Your task to perform on an android device: What's the news in South Korea? Image 0: 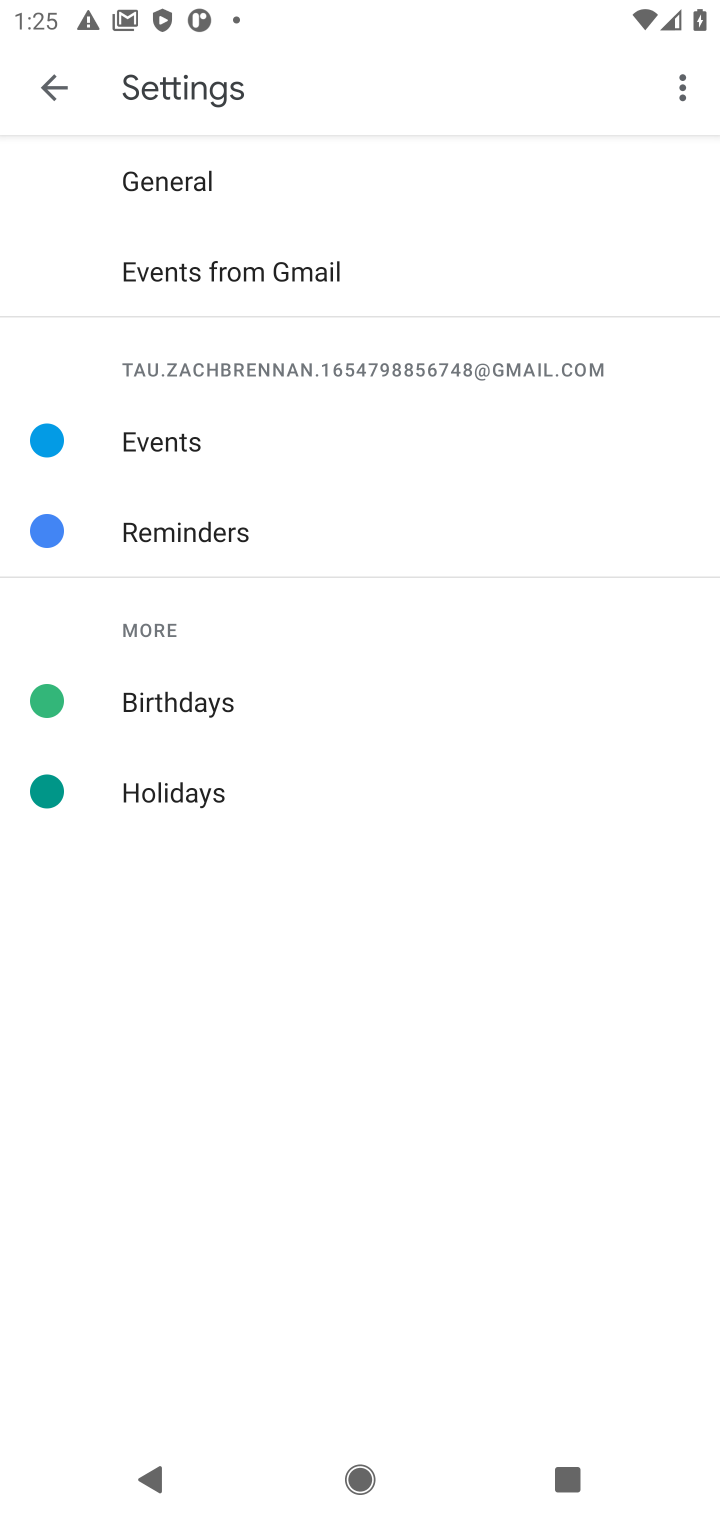
Step 0: press home button
Your task to perform on an android device: What's the news in South Korea? Image 1: 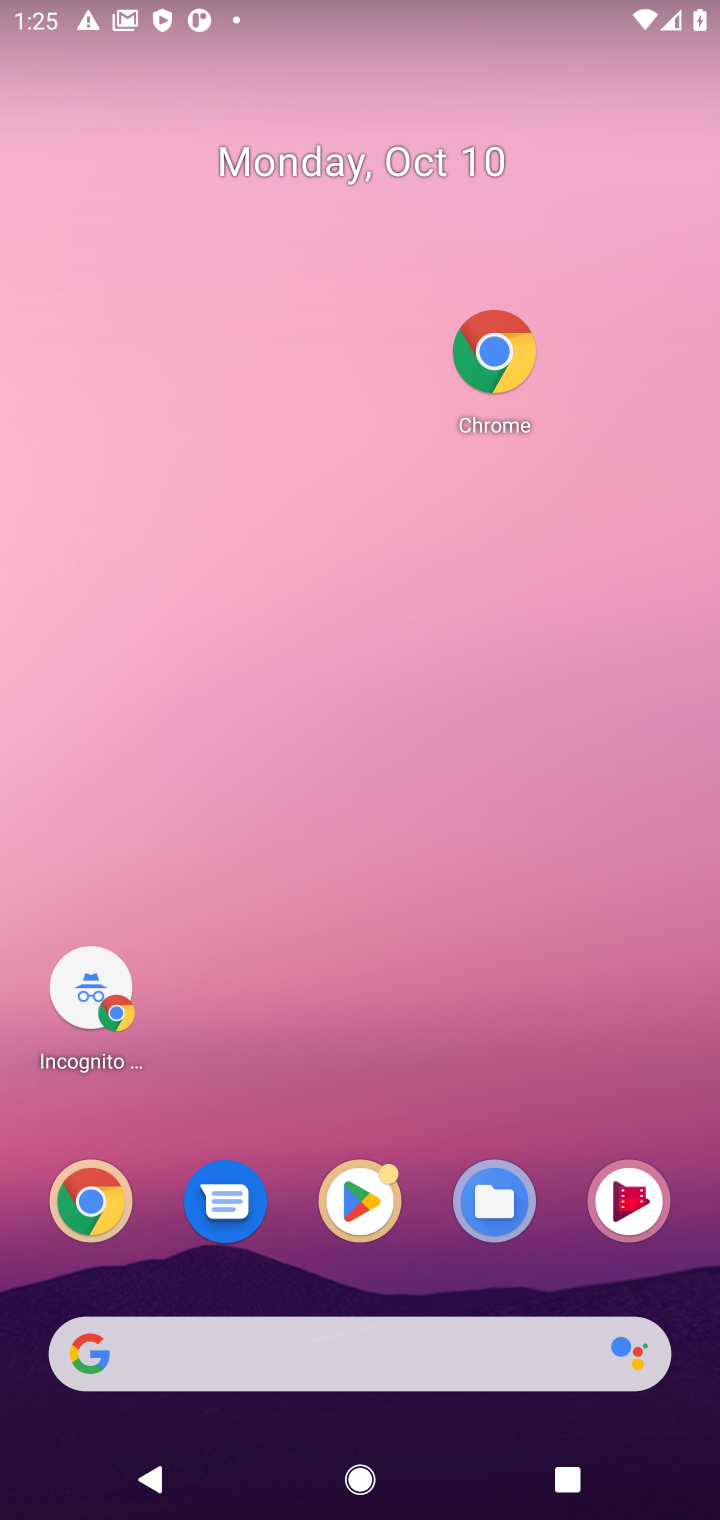
Step 1: click (152, 1351)
Your task to perform on an android device: What's the news in South Korea? Image 2: 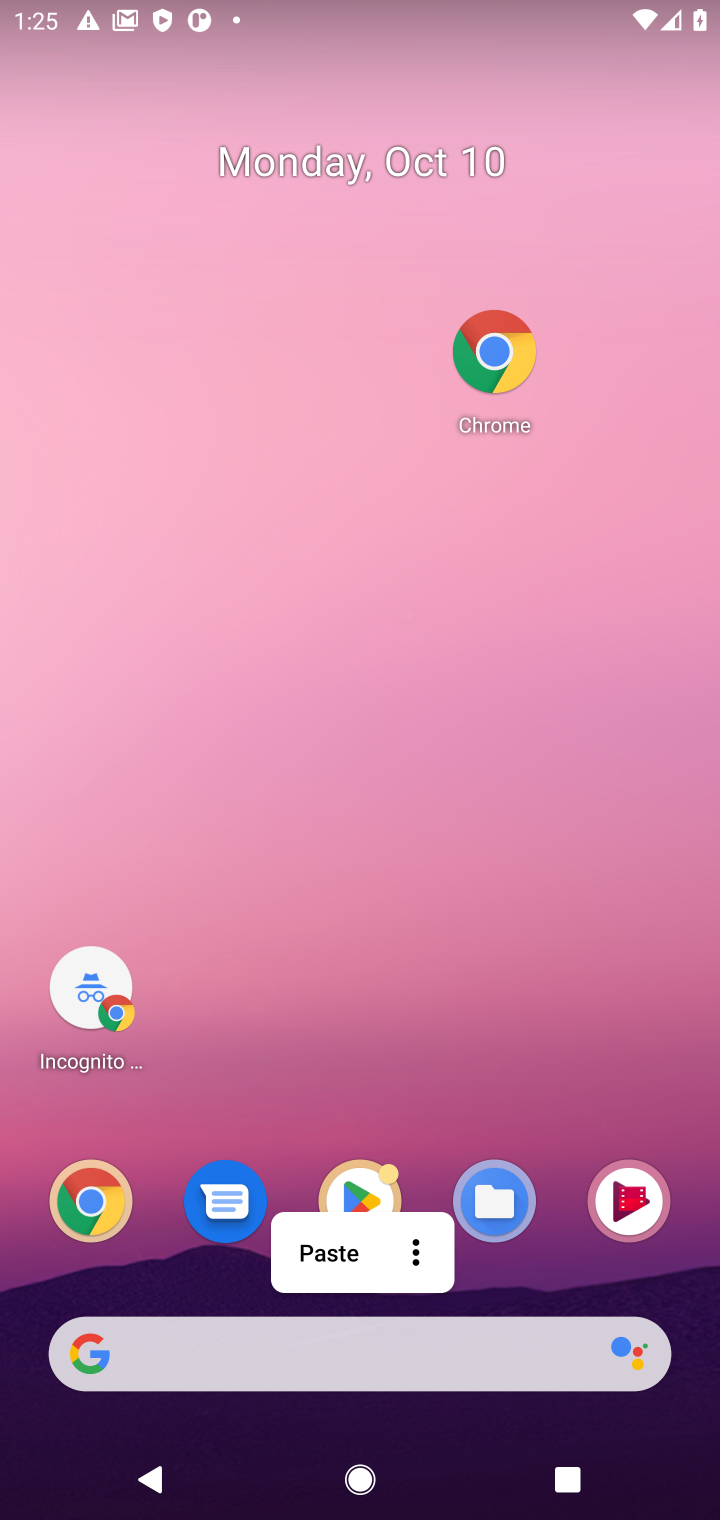
Step 2: click (190, 1357)
Your task to perform on an android device: What's the news in South Korea? Image 3: 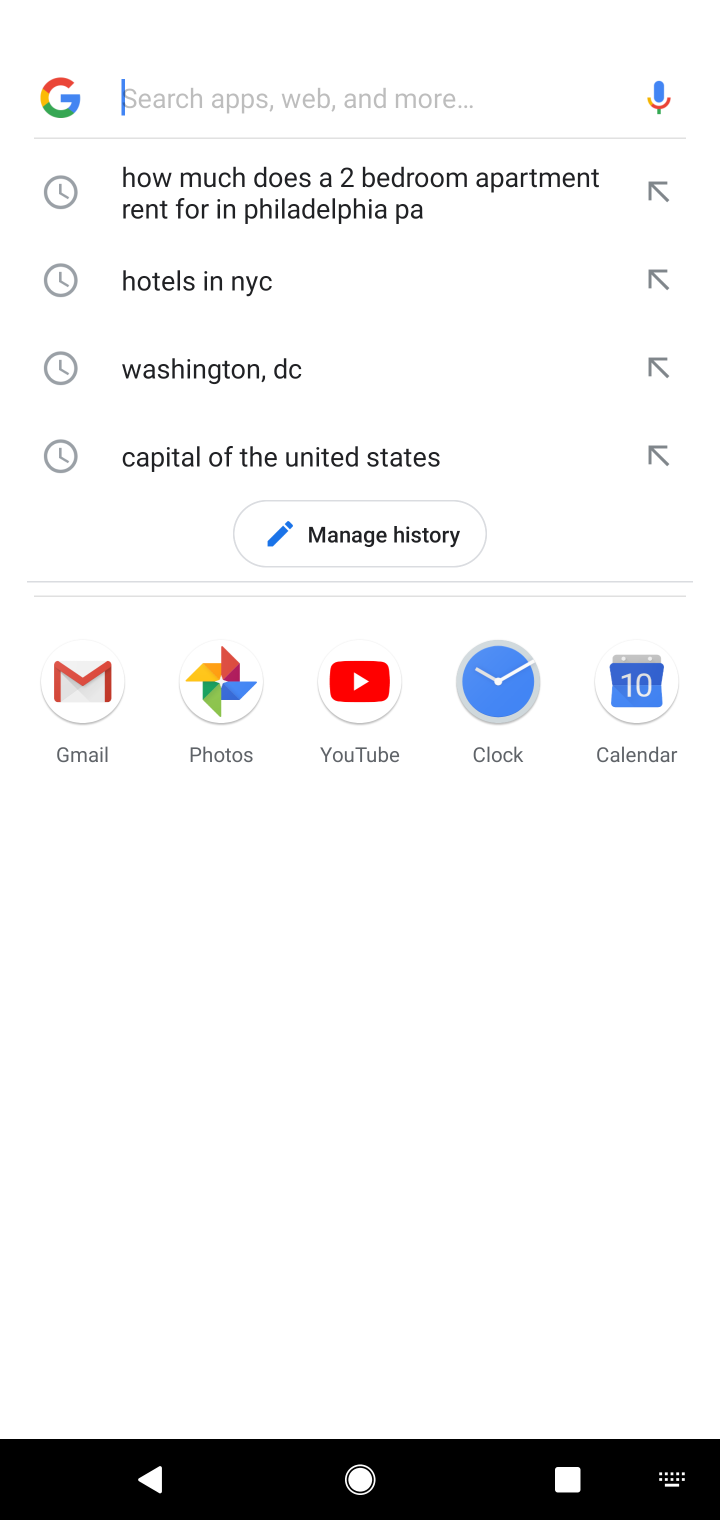
Step 3: click (148, 84)
Your task to perform on an android device: What's the news in South Korea? Image 4: 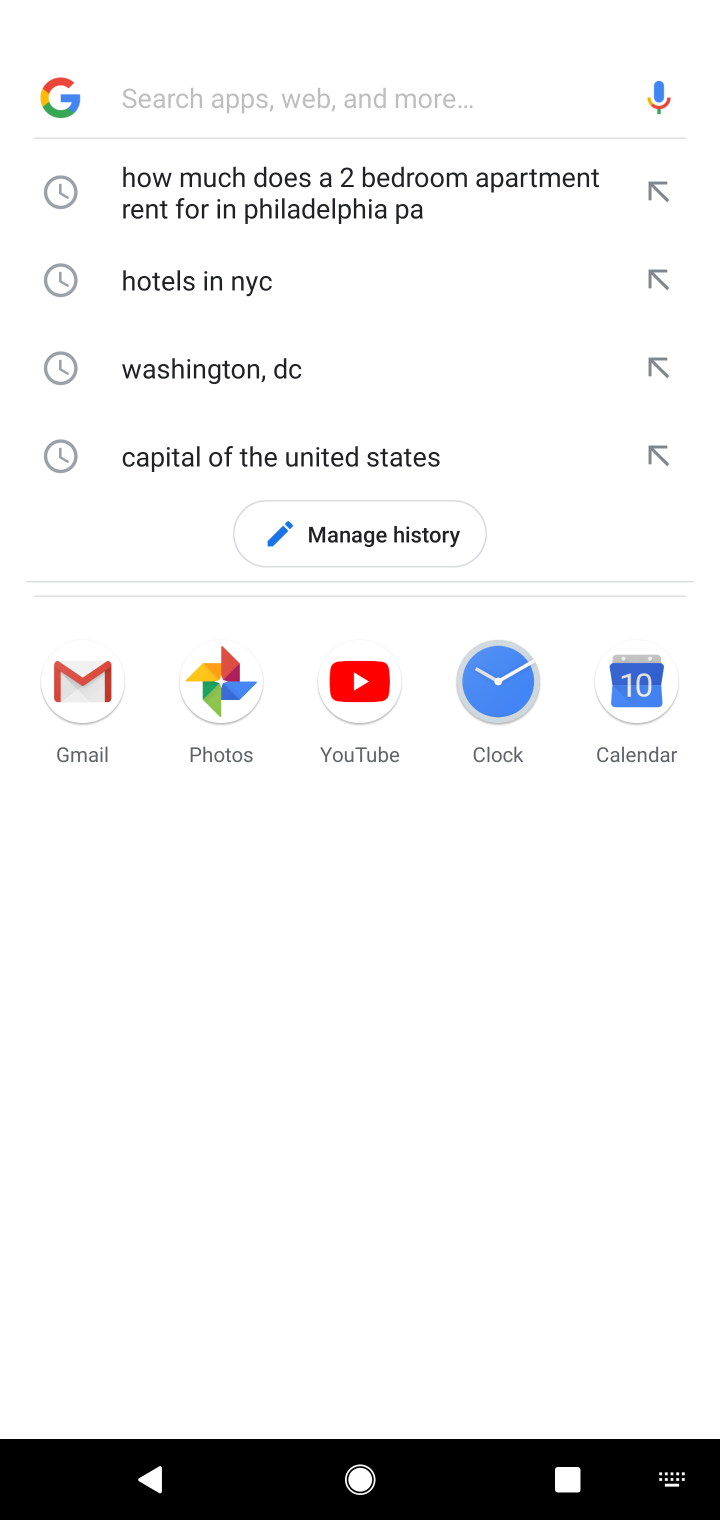
Step 4: type " news in South Korea"
Your task to perform on an android device: What's the news in South Korea? Image 5: 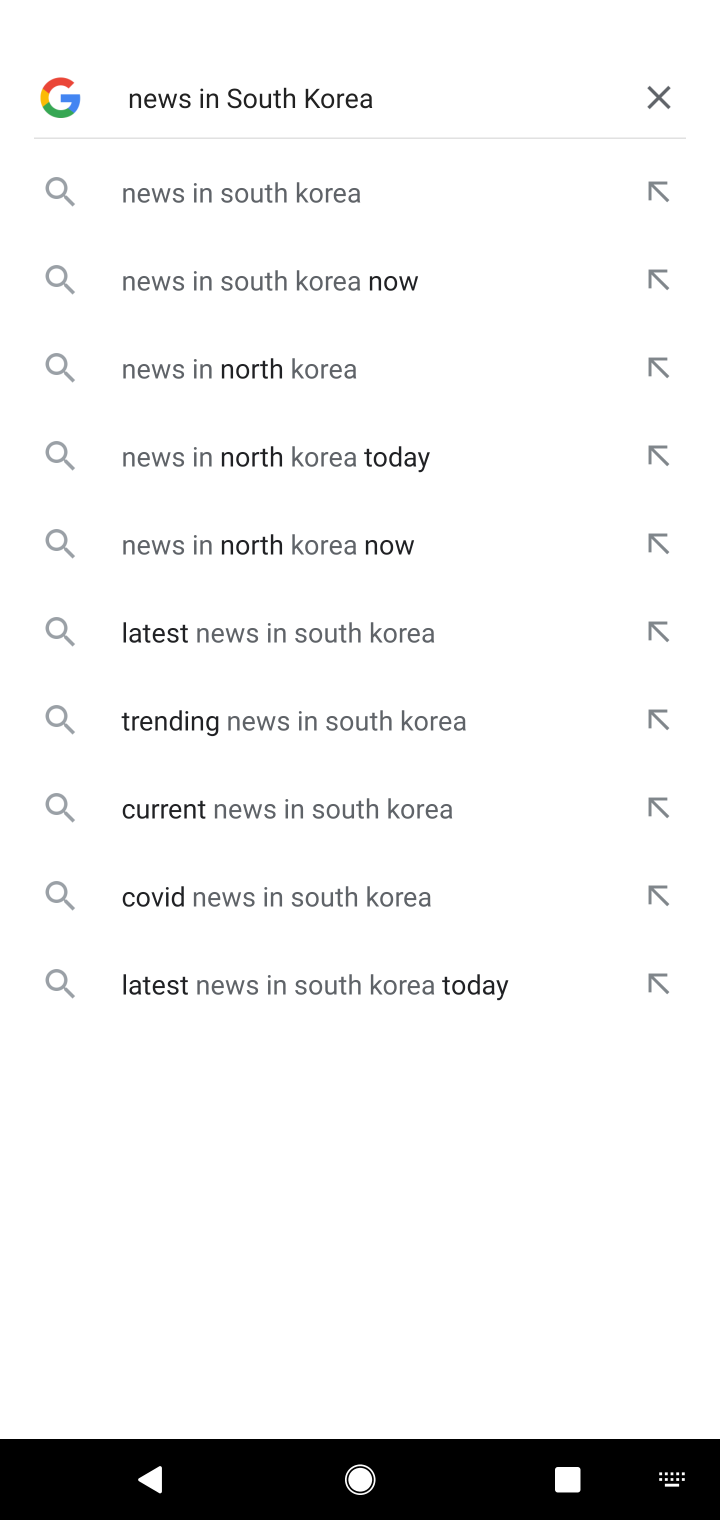
Step 5: click (241, 205)
Your task to perform on an android device: What's the news in South Korea? Image 6: 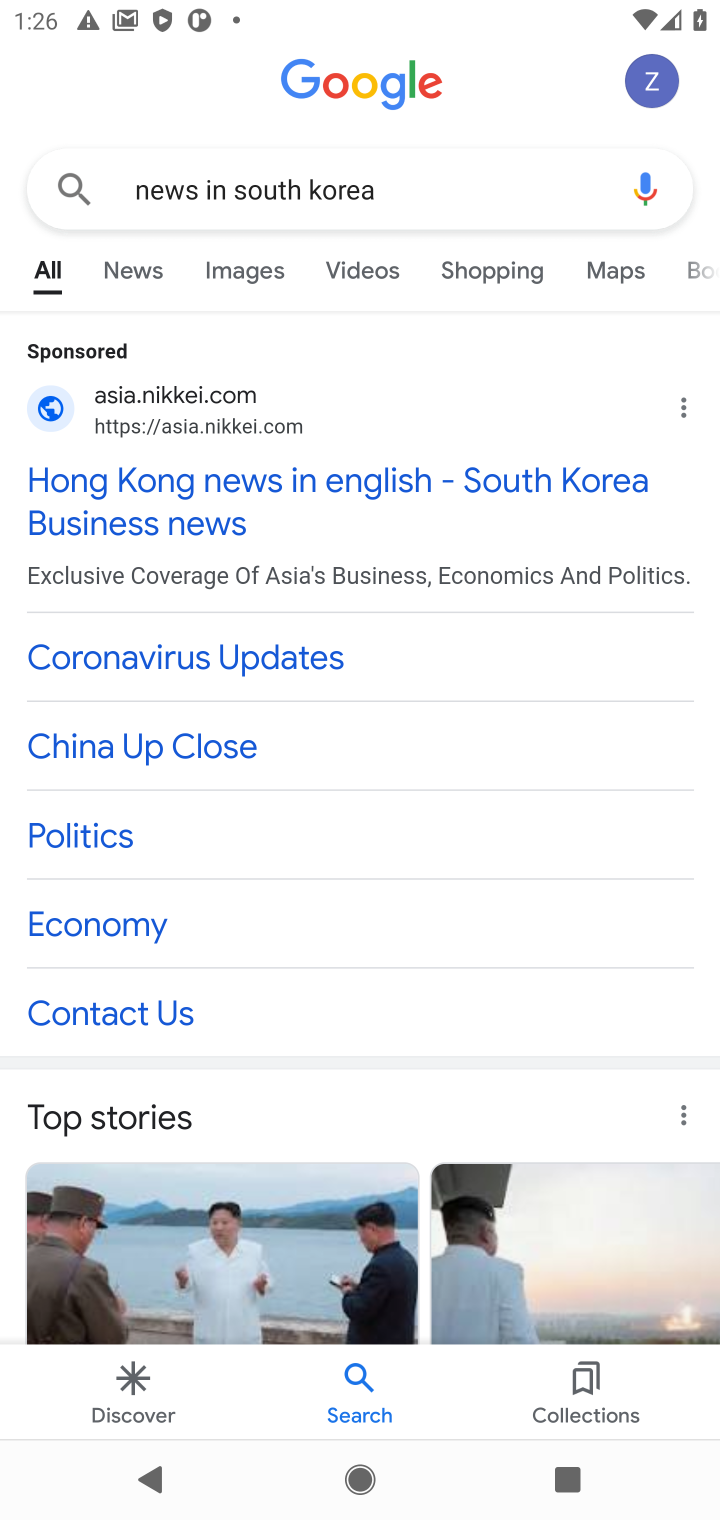
Step 6: click (128, 281)
Your task to perform on an android device: What's the news in South Korea? Image 7: 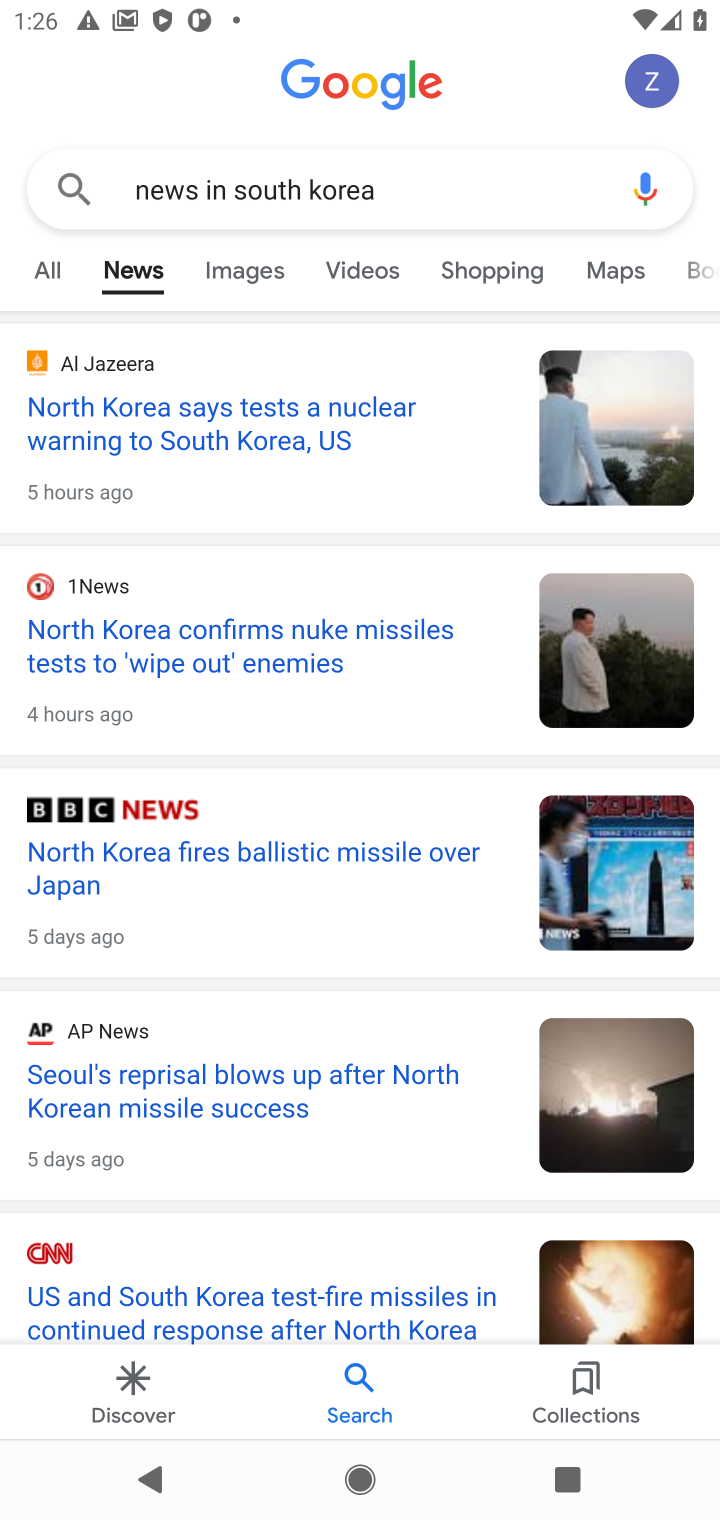
Step 7: drag from (286, 1001) to (237, 599)
Your task to perform on an android device: What's the news in South Korea? Image 8: 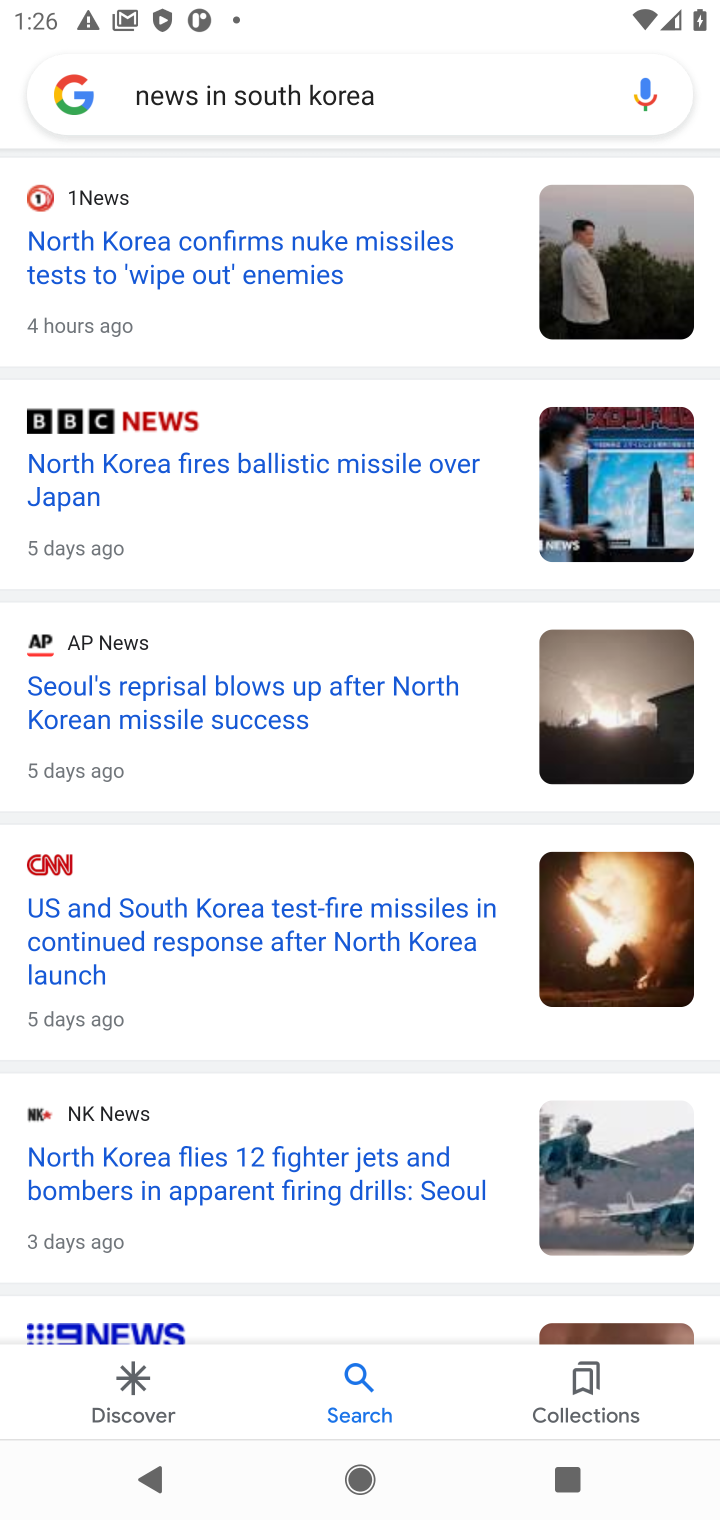
Step 8: click (203, 278)
Your task to perform on an android device: What's the news in South Korea? Image 9: 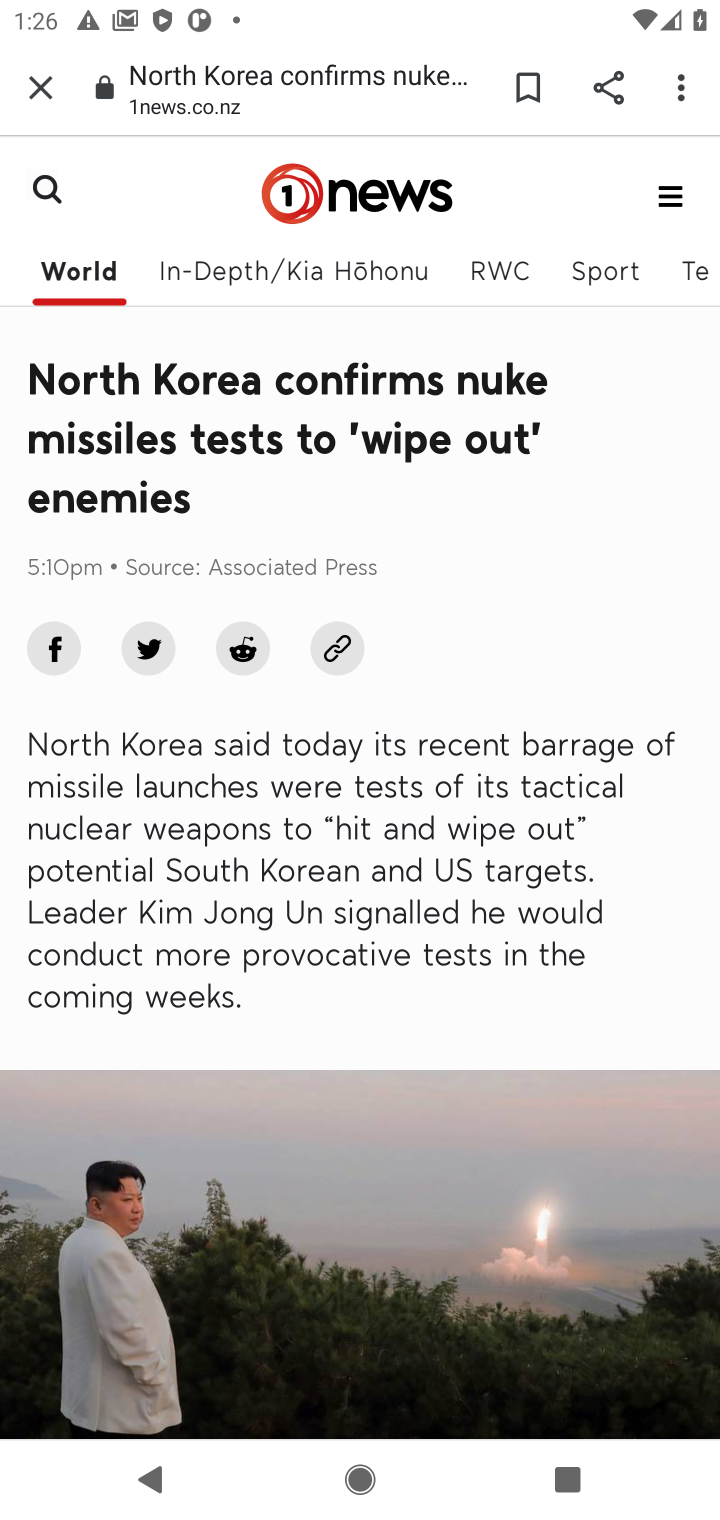
Step 9: task complete